Your task to perform on an android device: open wifi settings Image 0: 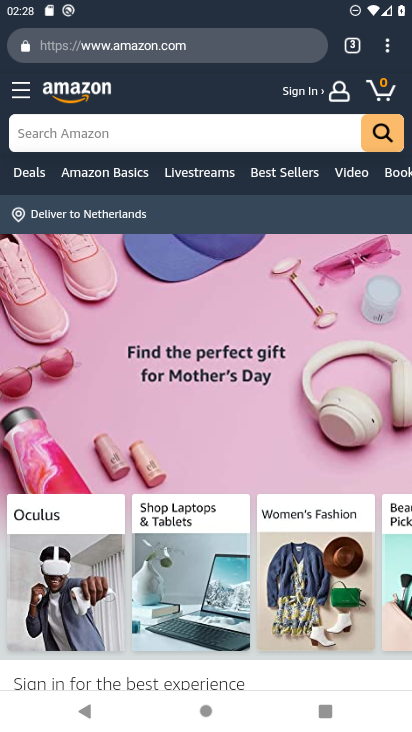
Step 0: drag from (95, 20) to (4, 725)
Your task to perform on an android device: open wifi settings Image 1: 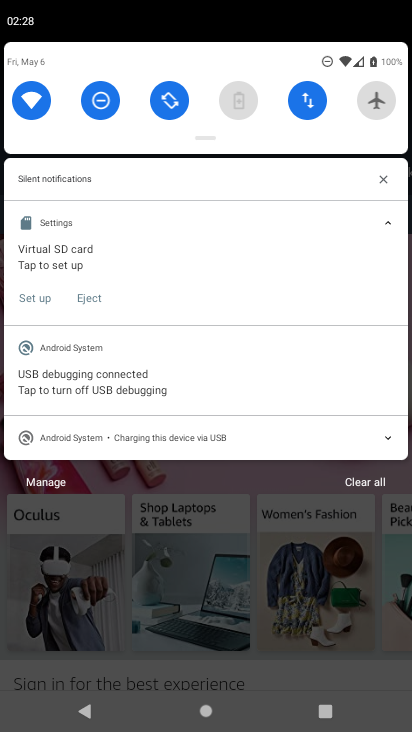
Step 1: task complete